Your task to perform on an android device: see tabs open on other devices in the chrome app Image 0: 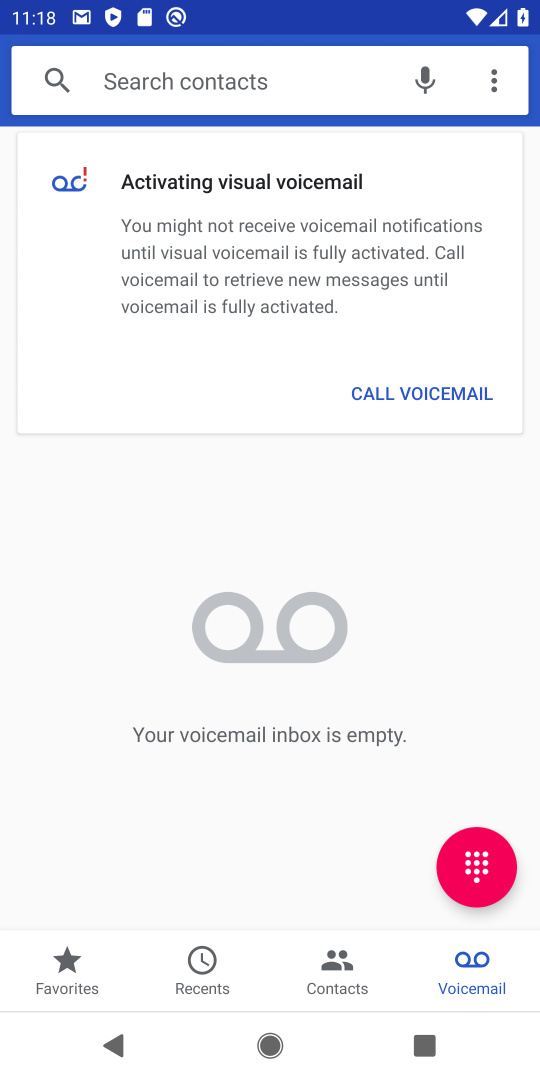
Step 0: press home button
Your task to perform on an android device: see tabs open on other devices in the chrome app Image 1: 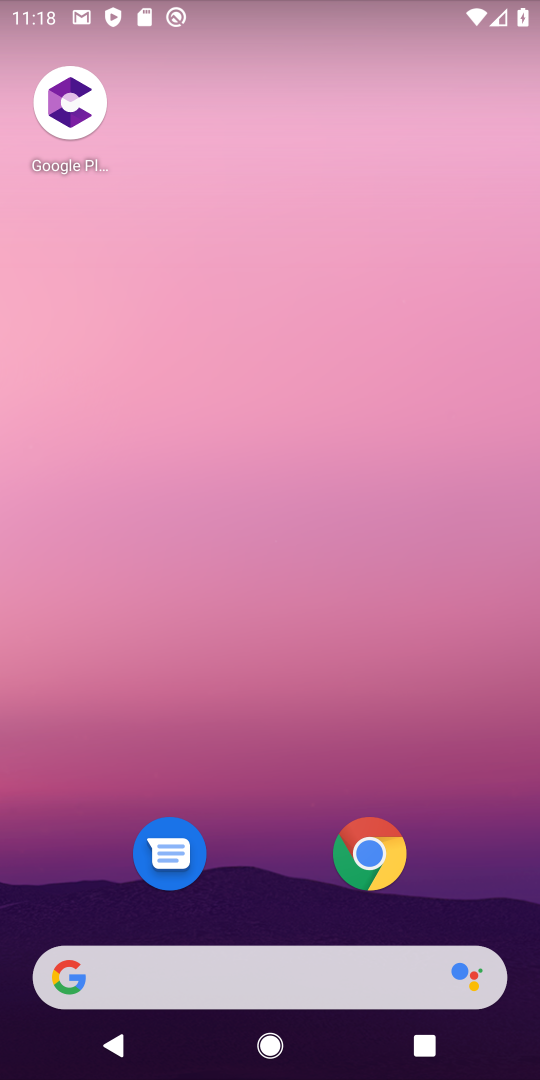
Step 1: drag from (312, 931) to (247, 334)
Your task to perform on an android device: see tabs open on other devices in the chrome app Image 2: 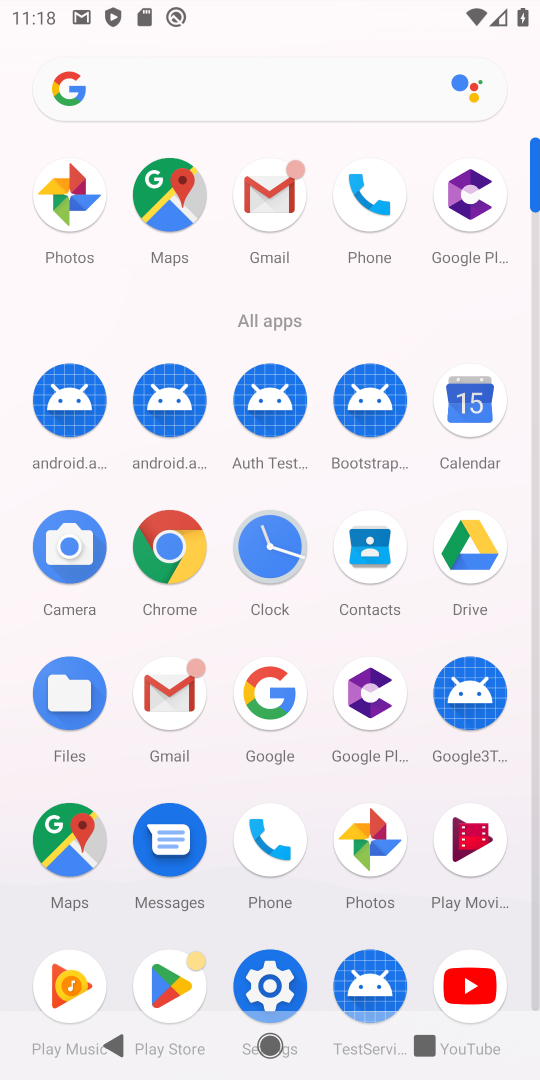
Step 2: click (156, 558)
Your task to perform on an android device: see tabs open on other devices in the chrome app Image 3: 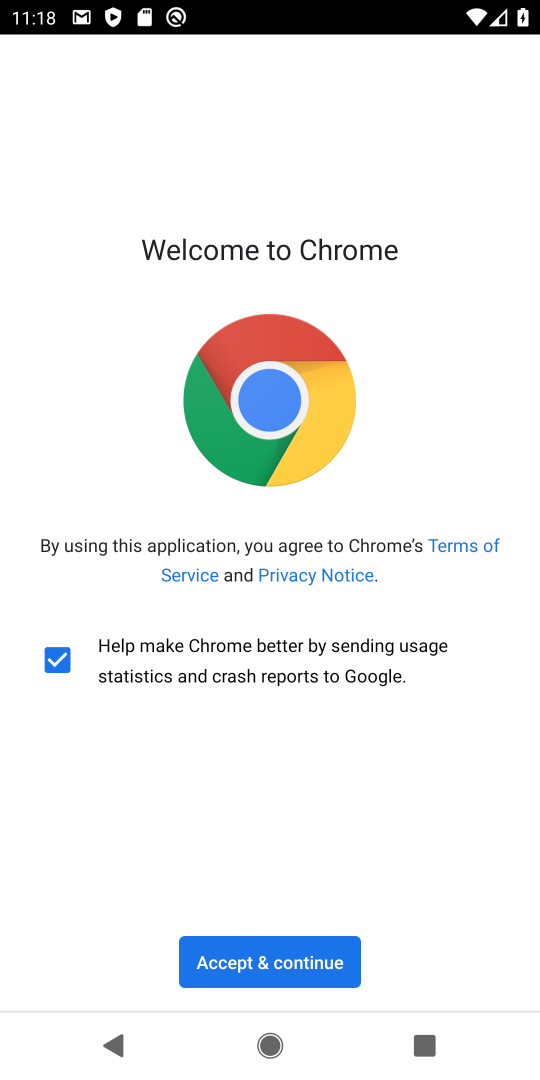
Step 3: click (280, 966)
Your task to perform on an android device: see tabs open on other devices in the chrome app Image 4: 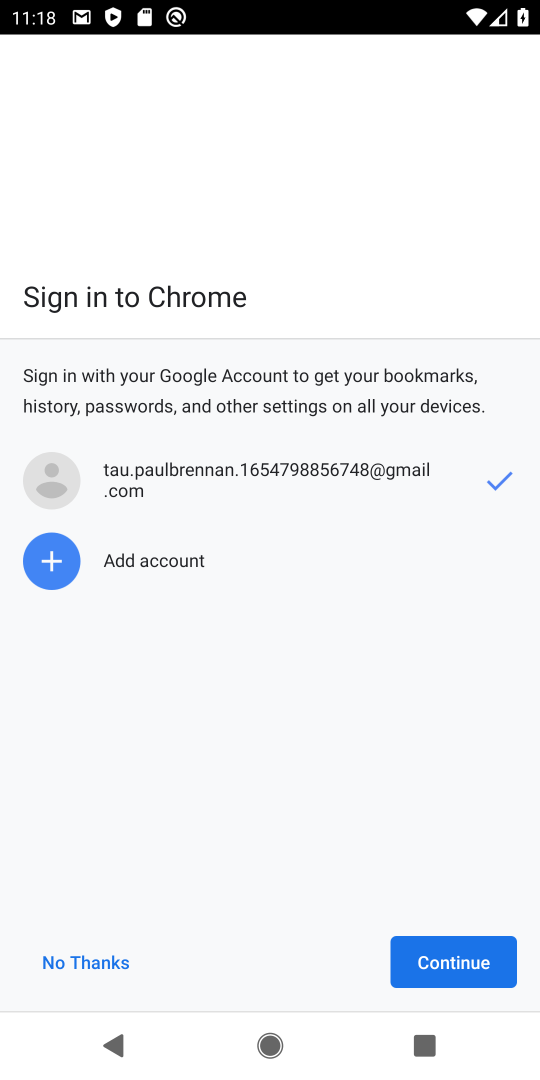
Step 4: click (427, 966)
Your task to perform on an android device: see tabs open on other devices in the chrome app Image 5: 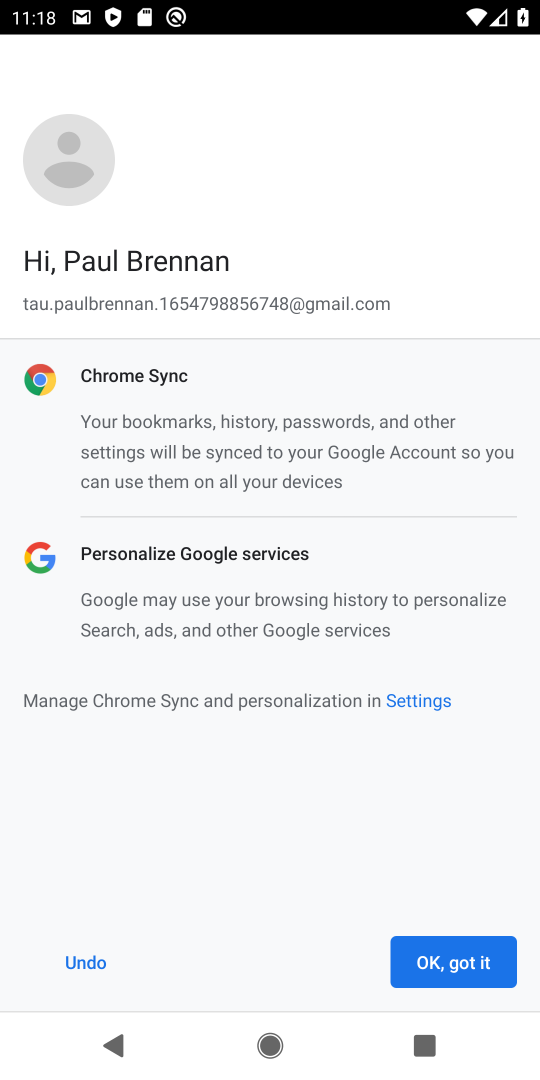
Step 5: click (427, 966)
Your task to perform on an android device: see tabs open on other devices in the chrome app Image 6: 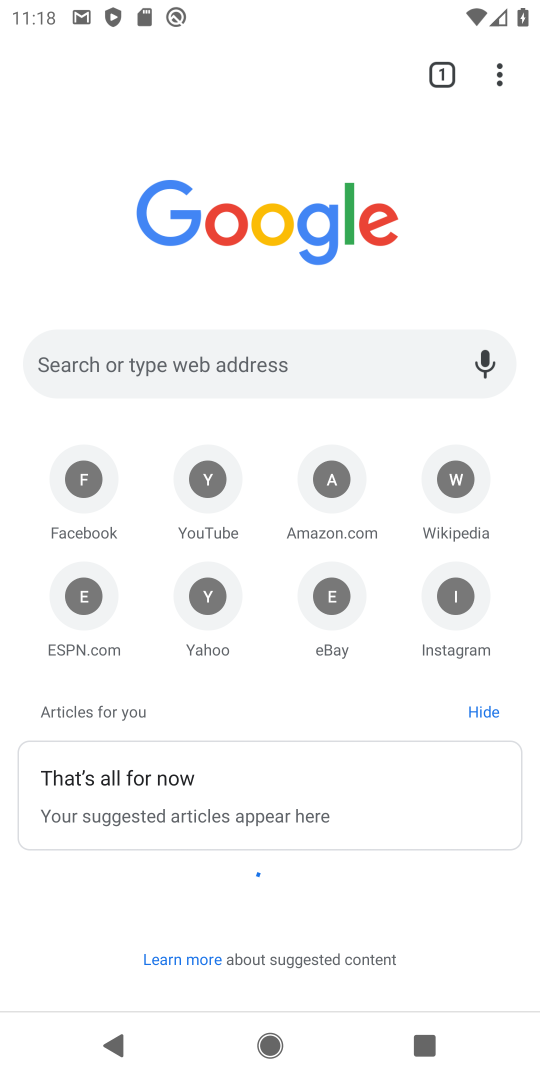
Step 6: click (447, 74)
Your task to perform on an android device: see tabs open on other devices in the chrome app Image 7: 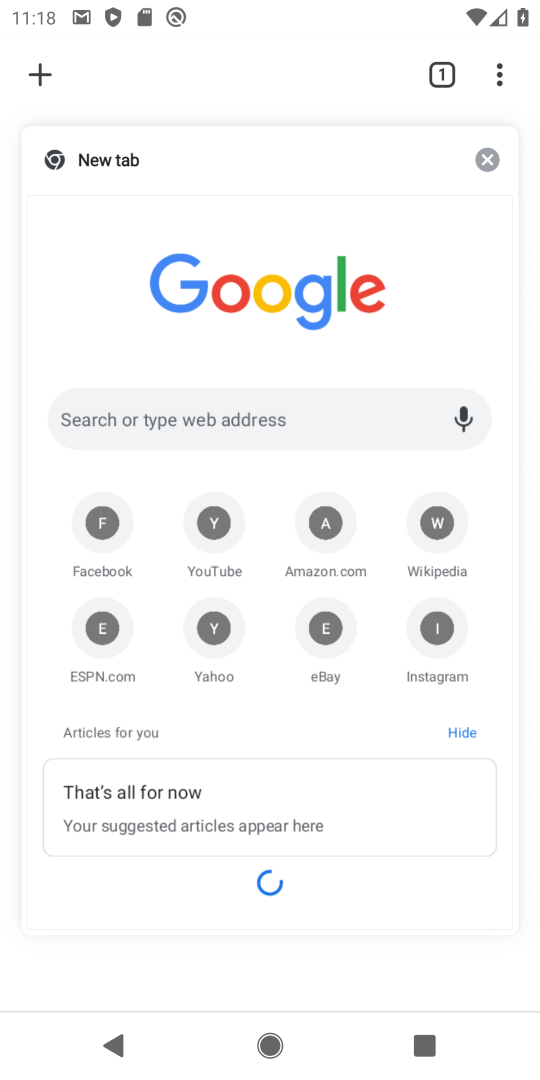
Step 7: task complete